Your task to perform on an android device: turn on the 24-hour format for clock Image 0: 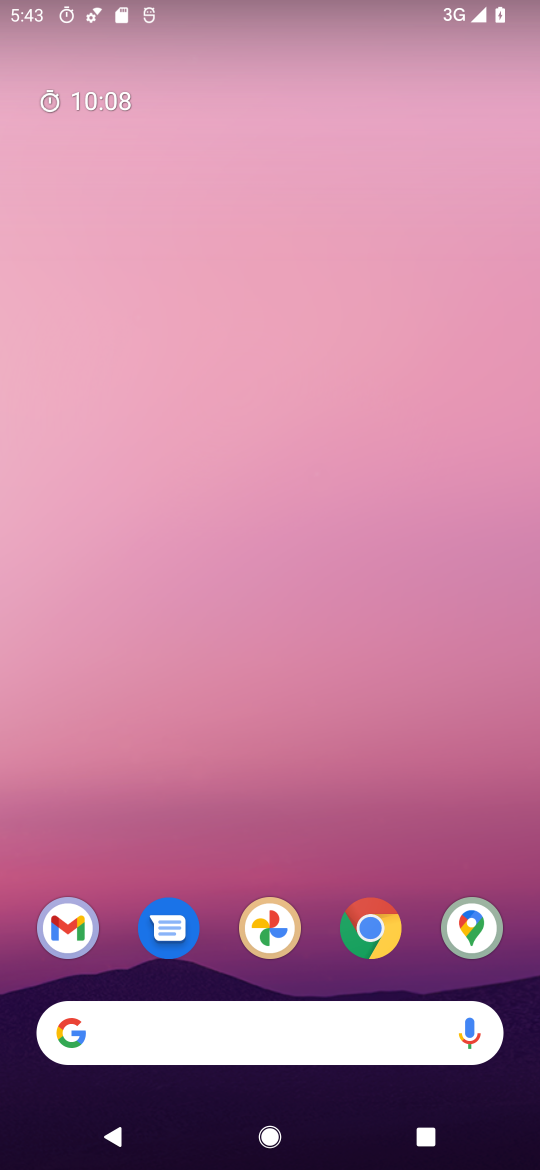
Step 0: drag from (209, 975) to (539, 787)
Your task to perform on an android device: turn on the 24-hour format for clock Image 1: 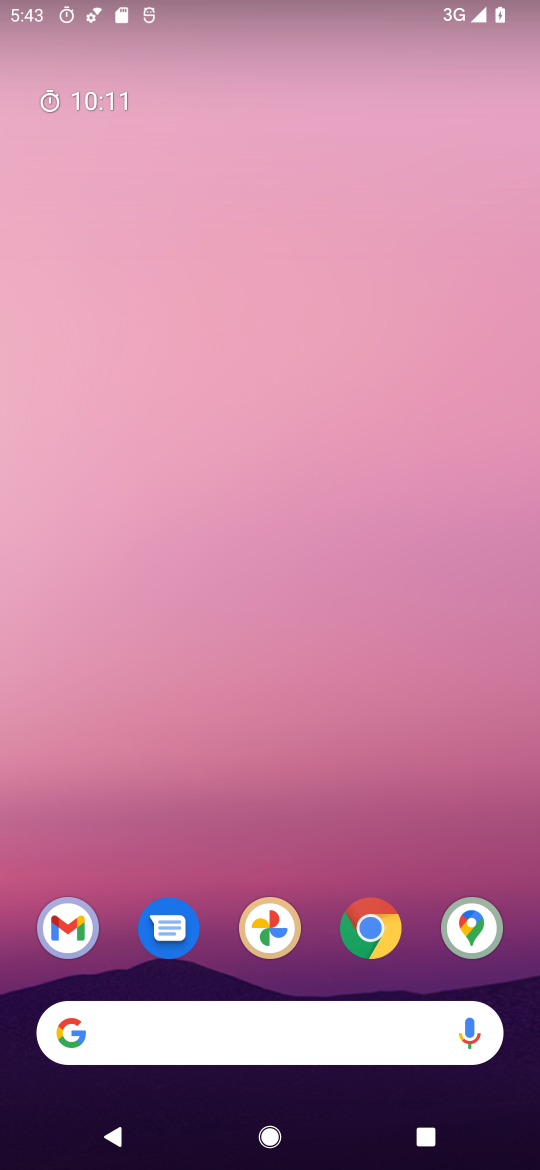
Step 1: click (474, 753)
Your task to perform on an android device: turn on the 24-hour format for clock Image 2: 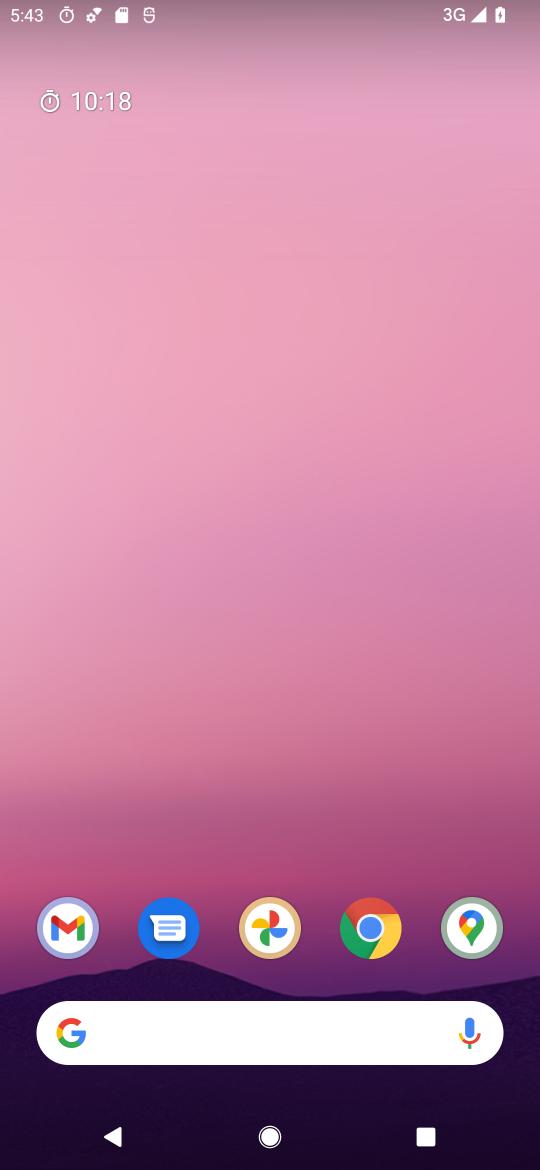
Step 2: drag from (222, 959) to (537, 328)
Your task to perform on an android device: turn on the 24-hour format for clock Image 3: 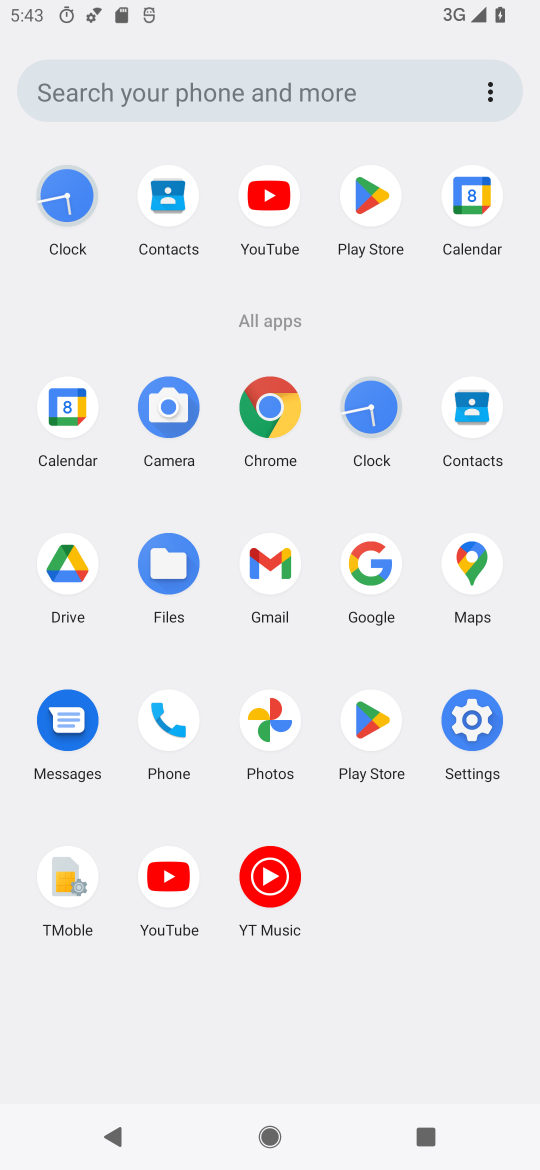
Step 3: click (459, 745)
Your task to perform on an android device: turn on the 24-hour format for clock Image 4: 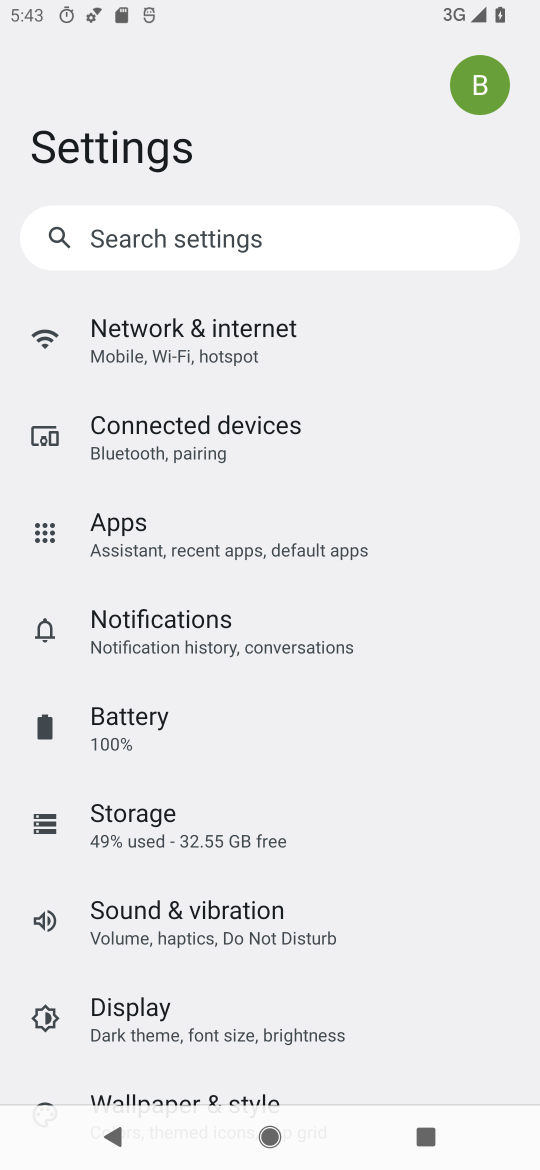
Step 4: drag from (277, 962) to (334, 470)
Your task to perform on an android device: turn on the 24-hour format for clock Image 5: 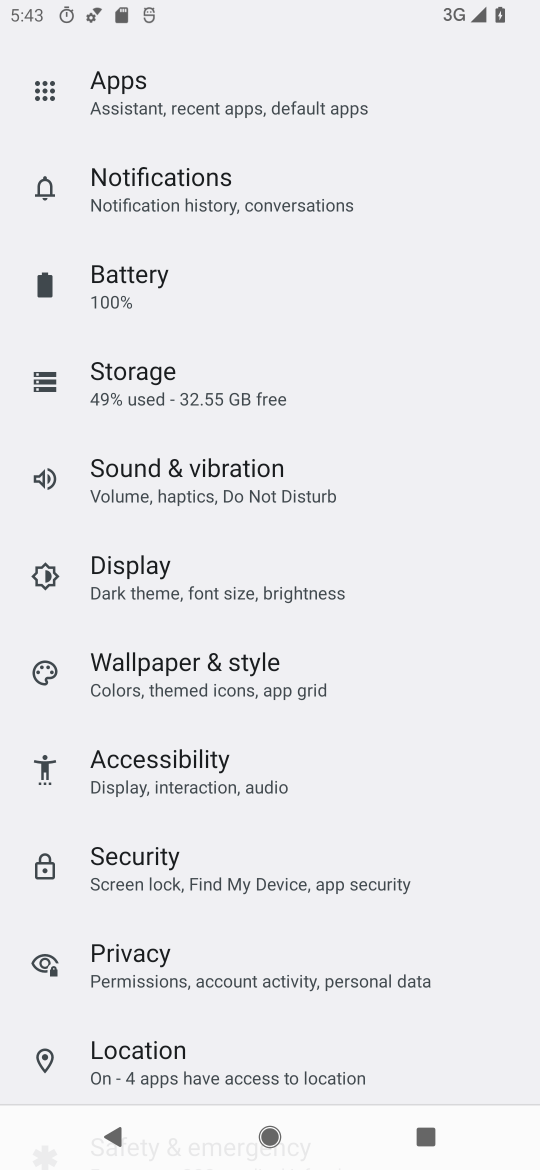
Step 5: drag from (197, 938) to (217, 214)
Your task to perform on an android device: turn on the 24-hour format for clock Image 6: 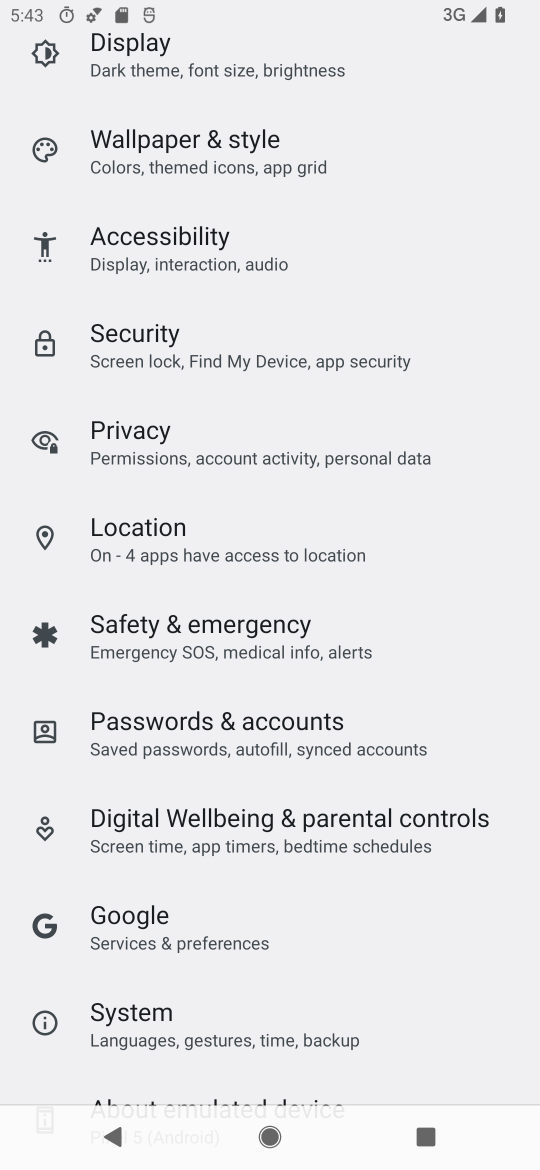
Step 6: drag from (235, 962) to (280, 598)
Your task to perform on an android device: turn on the 24-hour format for clock Image 7: 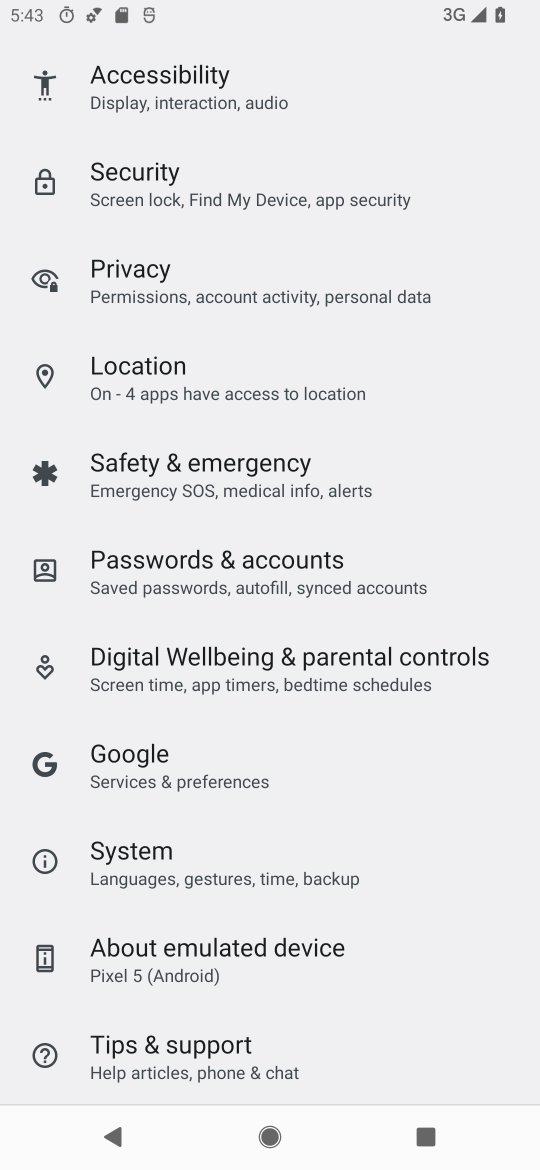
Step 7: click (210, 882)
Your task to perform on an android device: turn on the 24-hour format for clock Image 8: 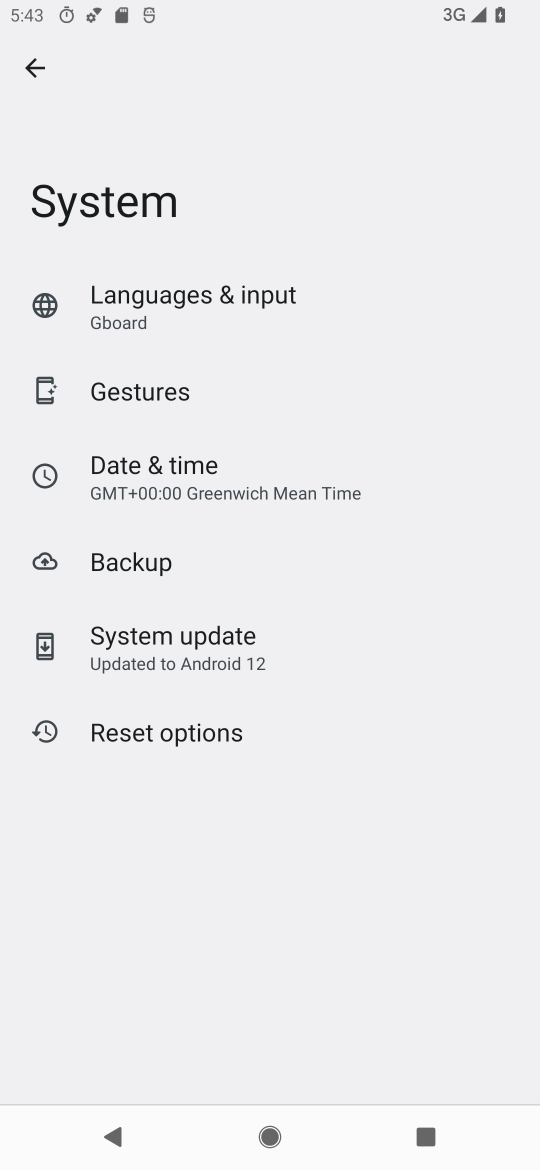
Step 8: click (211, 470)
Your task to perform on an android device: turn on the 24-hour format for clock Image 9: 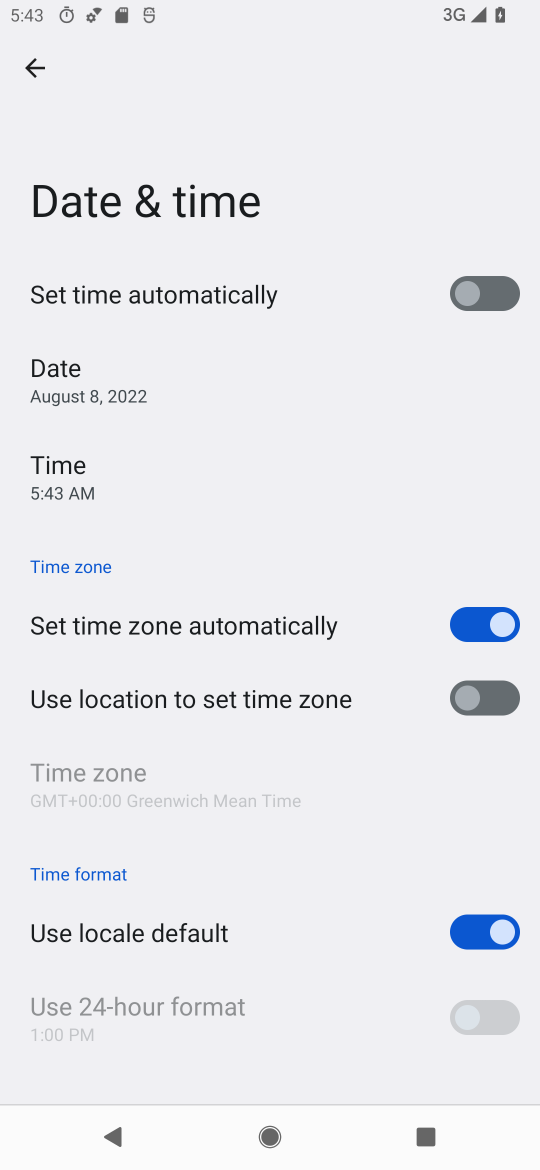
Step 9: click (455, 922)
Your task to perform on an android device: turn on the 24-hour format for clock Image 10: 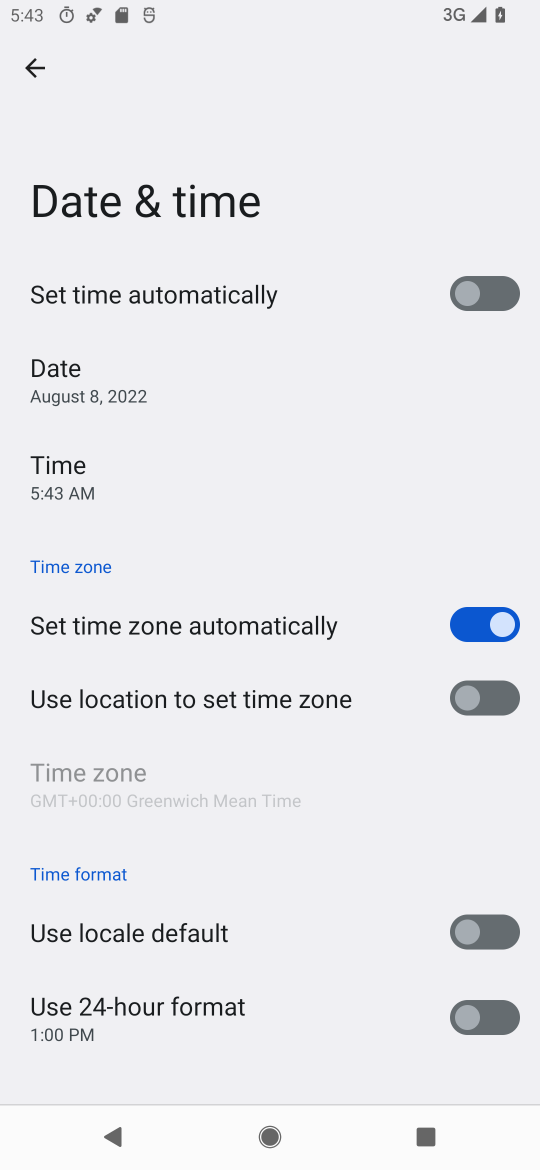
Step 10: click (512, 1005)
Your task to perform on an android device: turn on the 24-hour format for clock Image 11: 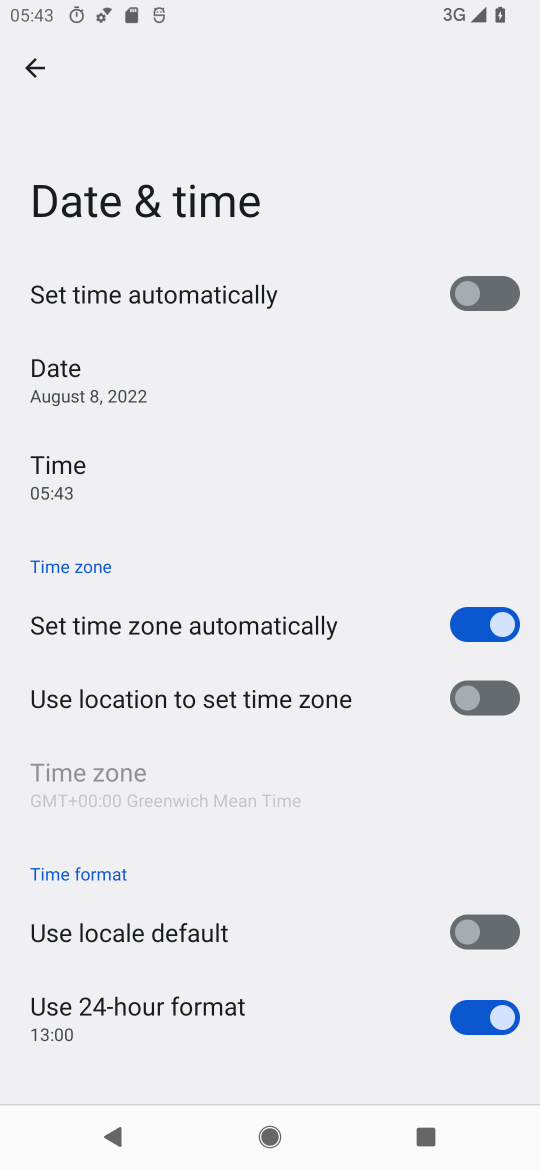
Step 11: task complete